Your task to perform on an android device: turn off priority inbox in the gmail app Image 0: 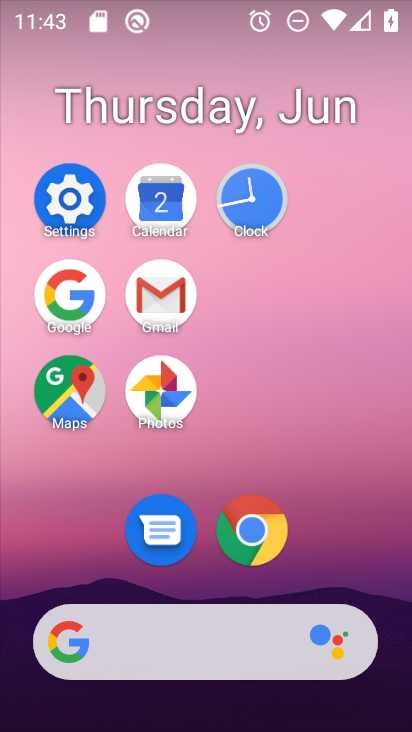
Step 0: click (151, 307)
Your task to perform on an android device: turn off priority inbox in the gmail app Image 1: 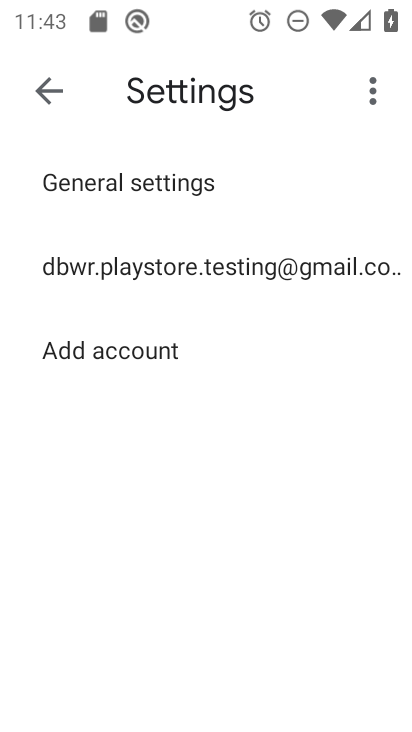
Step 1: click (103, 281)
Your task to perform on an android device: turn off priority inbox in the gmail app Image 2: 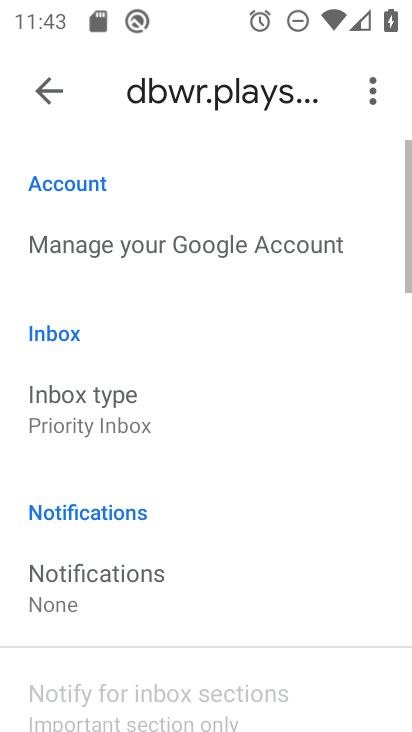
Step 2: click (167, 422)
Your task to perform on an android device: turn off priority inbox in the gmail app Image 3: 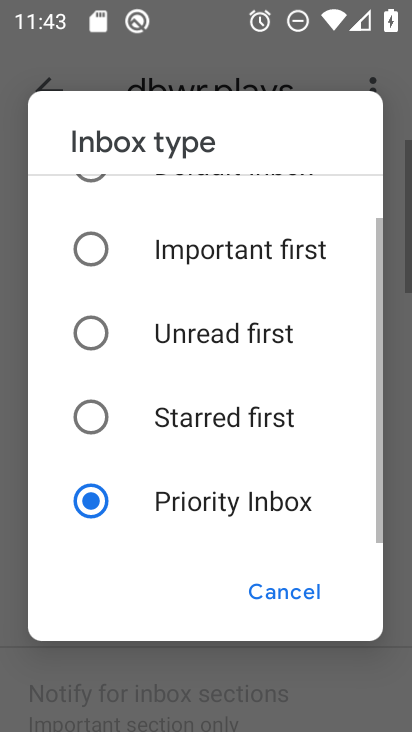
Step 3: drag from (180, 237) to (216, 577)
Your task to perform on an android device: turn off priority inbox in the gmail app Image 4: 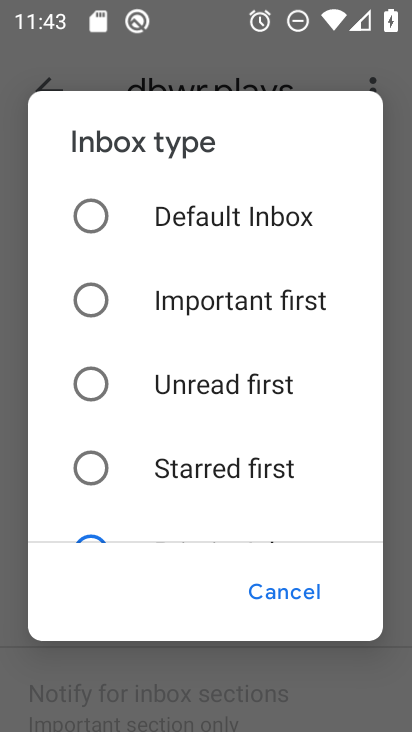
Step 4: click (203, 220)
Your task to perform on an android device: turn off priority inbox in the gmail app Image 5: 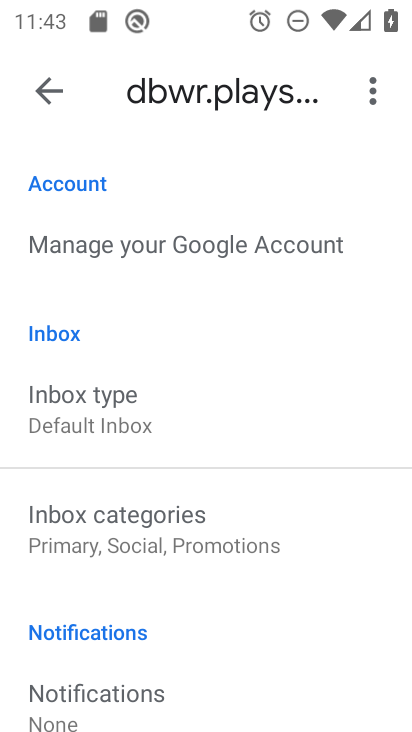
Step 5: task complete